Your task to perform on an android device: turn on the 24-hour format for clock Image 0: 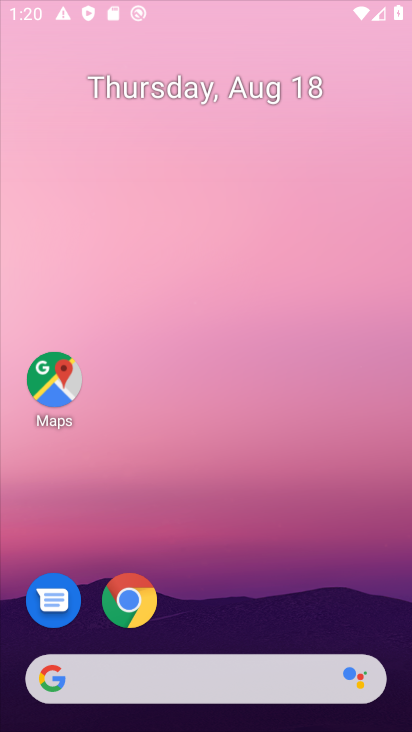
Step 0: click (123, 595)
Your task to perform on an android device: turn on the 24-hour format for clock Image 1: 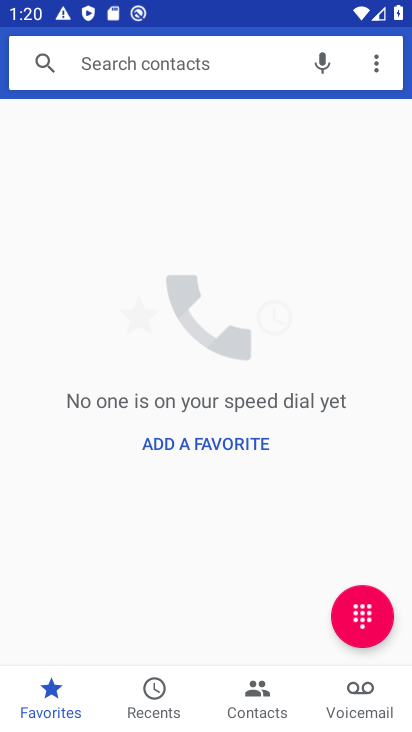
Step 1: press home button
Your task to perform on an android device: turn on the 24-hour format for clock Image 2: 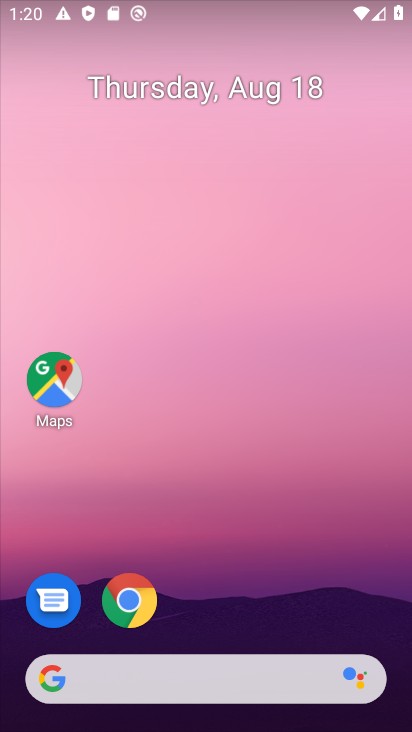
Step 2: drag from (245, 591) to (220, 101)
Your task to perform on an android device: turn on the 24-hour format for clock Image 3: 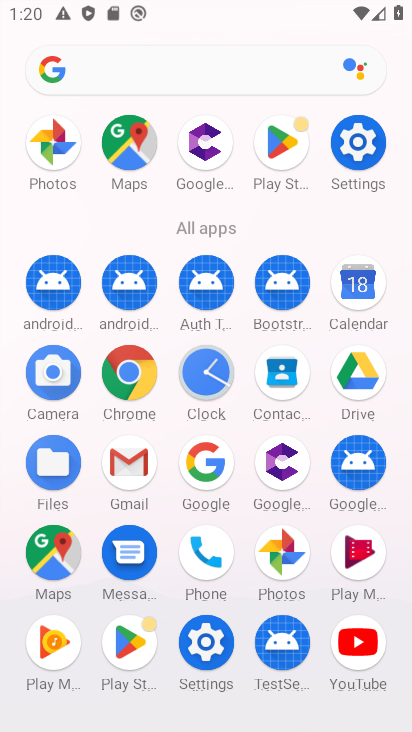
Step 3: click (206, 372)
Your task to perform on an android device: turn on the 24-hour format for clock Image 4: 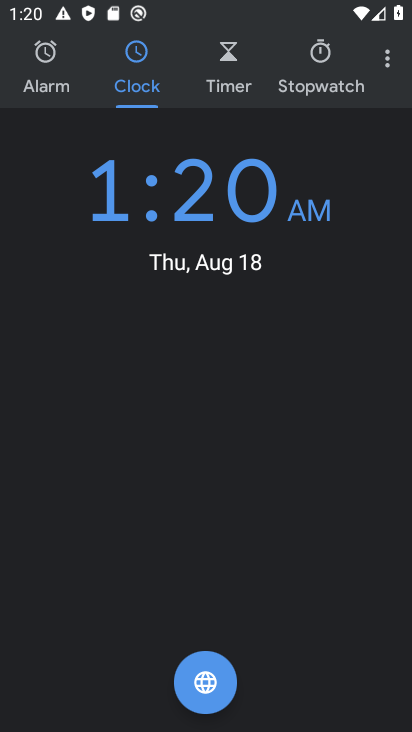
Step 4: click (388, 59)
Your task to perform on an android device: turn on the 24-hour format for clock Image 5: 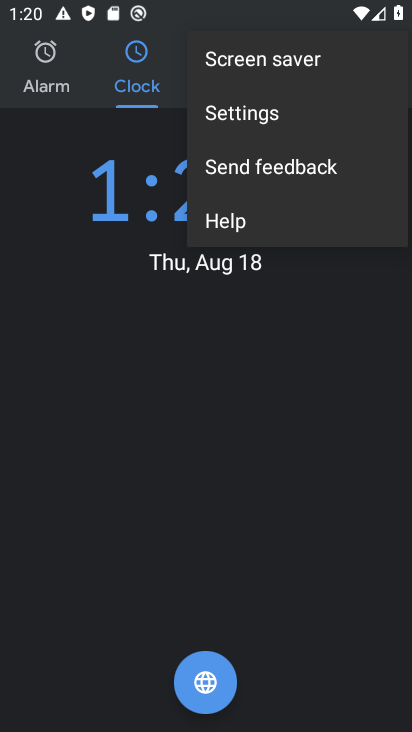
Step 5: click (248, 108)
Your task to perform on an android device: turn on the 24-hour format for clock Image 6: 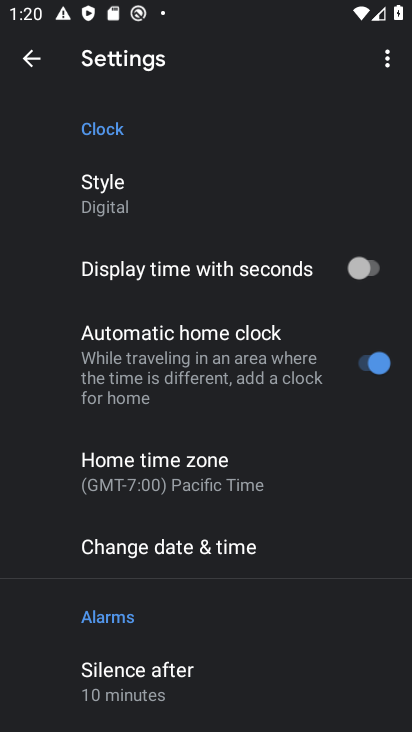
Step 6: click (200, 545)
Your task to perform on an android device: turn on the 24-hour format for clock Image 7: 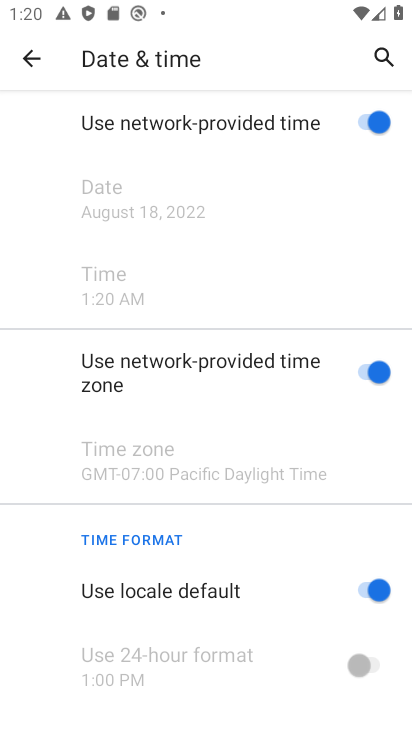
Step 7: click (379, 598)
Your task to perform on an android device: turn on the 24-hour format for clock Image 8: 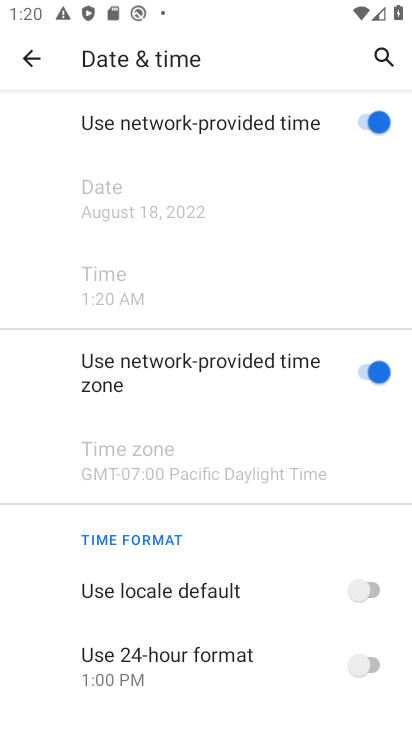
Step 8: click (359, 665)
Your task to perform on an android device: turn on the 24-hour format for clock Image 9: 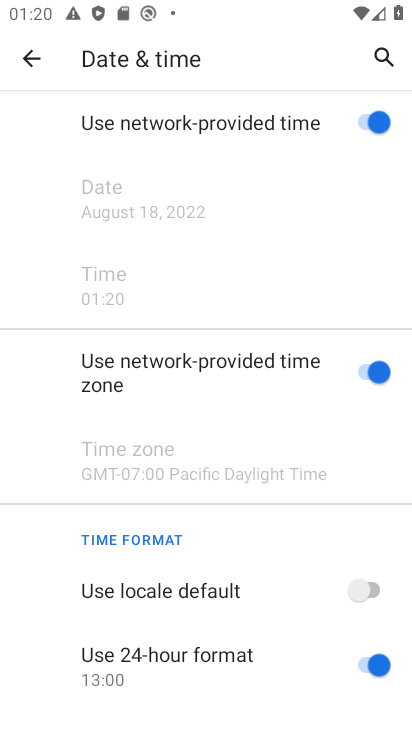
Step 9: task complete